Your task to perform on an android device: What's on my calendar tomorrow? Image 0: 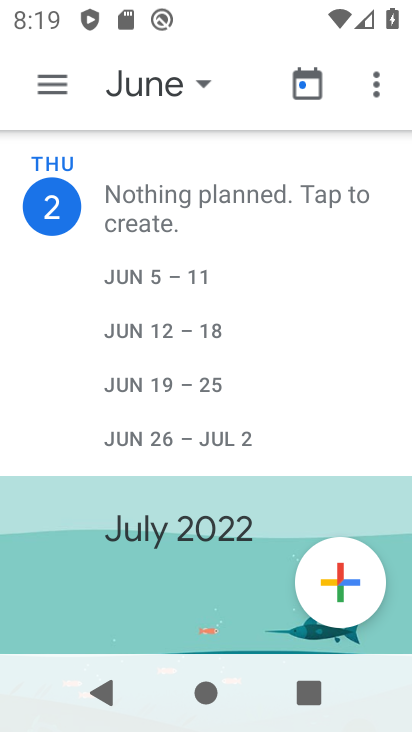
Step 0: press home button
Your task to perform on an android device: What's on my calendar tomorrow? Image 1: 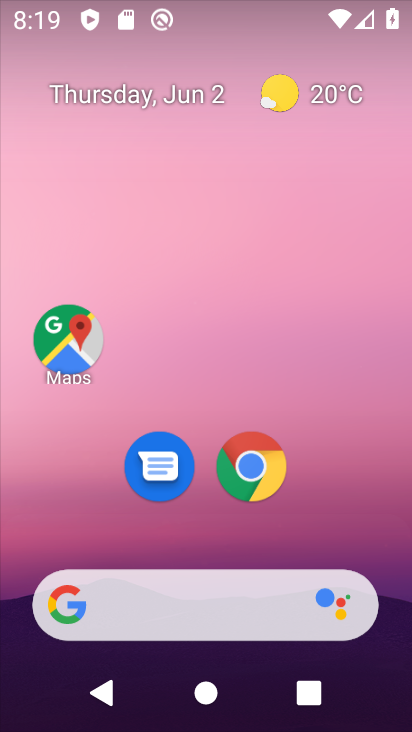
Step 1: drag from (320, 532) to (333, 29)
Your task to perform on an android device: What's on my calendar tomorrow? Image 2: 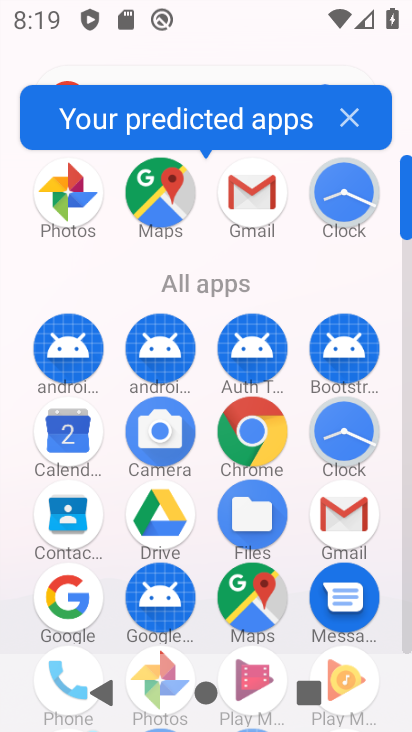
Step 2: click (61, 445)
Your task to perform on an android device: What's on my calendar tomorrow? Image 3: 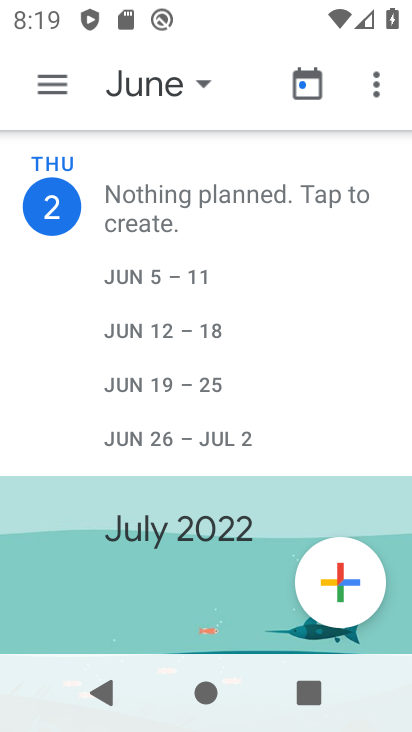
Step 3: click (189, 102)
Your task to perform on an android device: What's on my calendar tomorrow? Image 4: 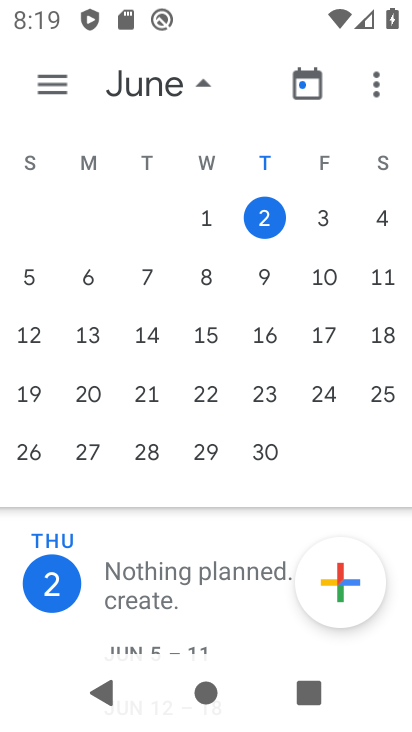
Step 4: click (328, 222)
Your task to perform on an android device: What's on my calendar tomorrow? Image 5: 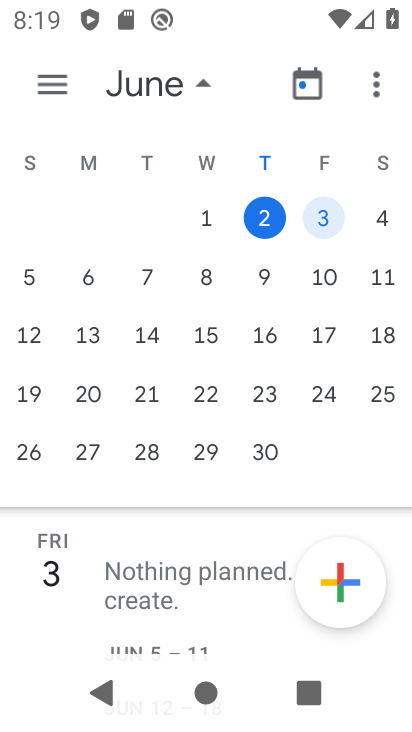
Step 5: click (38, 94)
Your task to perform on an android device: What's on my calendar tomorrow? Image 6: 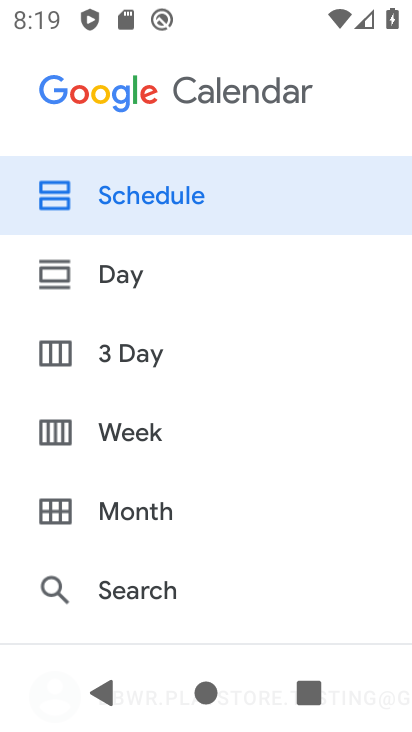
Step 6: click (115, 185)
Your task to perform on an android device: What's on my calendar tomorrow? Image 7: 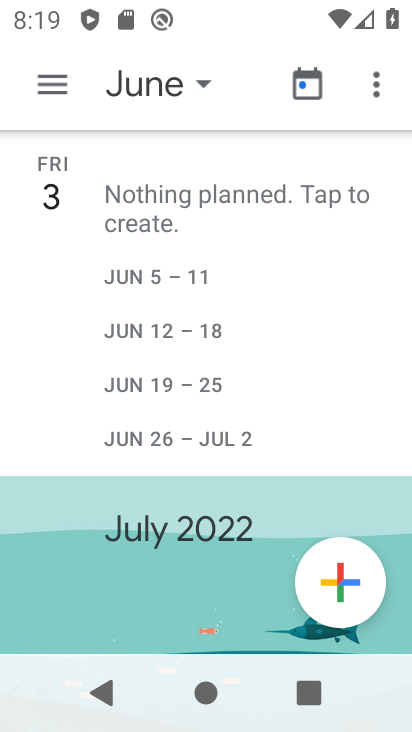
Step 7: task complete